Your task to perform on an android device: Do I have any events today? Image 0: 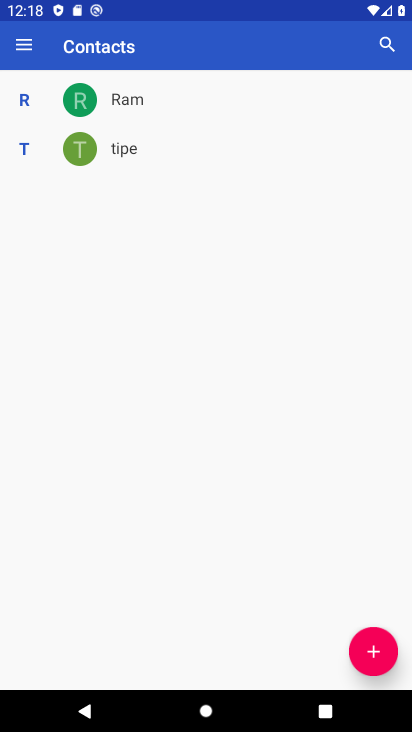
Step 0: press home button
Your task to perform on an android device: Do I have any events today? Image 1: 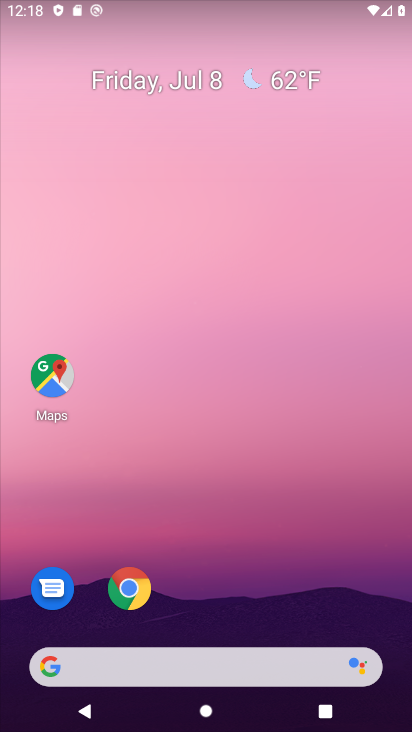
Step 1: drag from (178, 74) to (178, 1)
Your task to perform on an android device: Do I have any events today? Image 2: 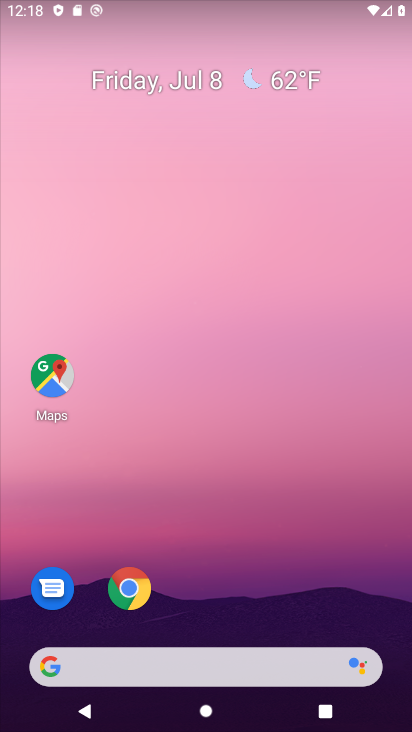
Step 2: drag from (187, 492) to (150, 84)
Your task to perform on an android device: Do I have any events today? Image 3: 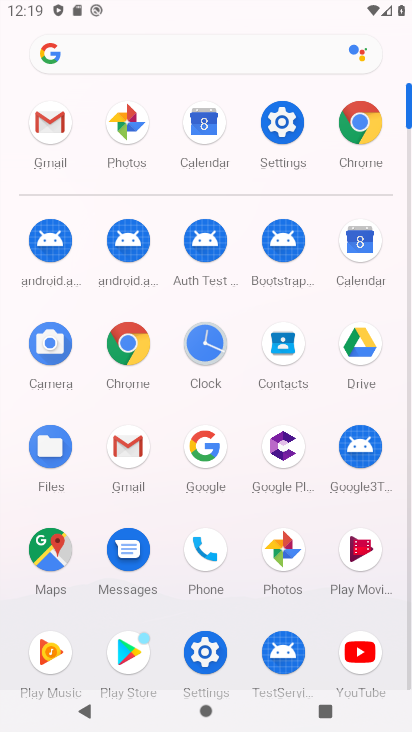
Step 3: click (203, 158)
Your task to perform on an android device: Do I have any events today? Image 4: 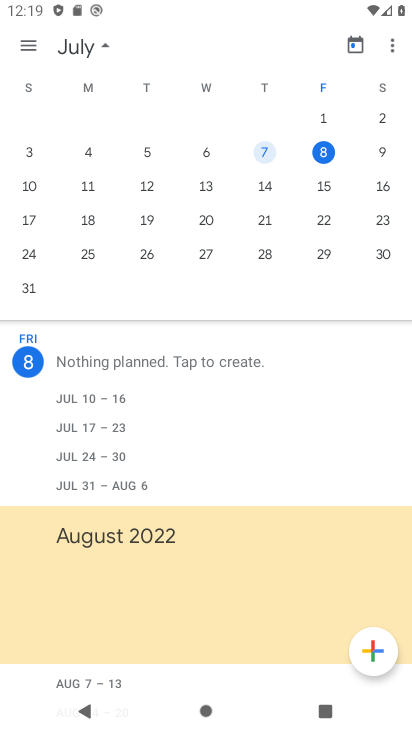
Step 4: task complete